Your task to perform on an android device: visit the assistant section in the google photos Image 0: 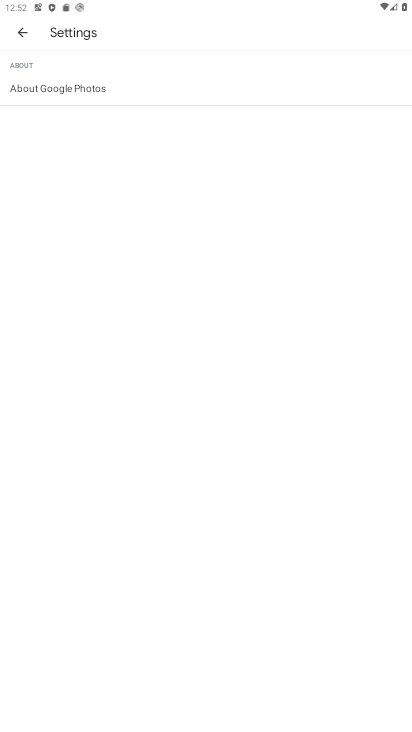
Step 0: press home button
Your task to perform on an android device: visit the assistant section in the google photos Image 1: 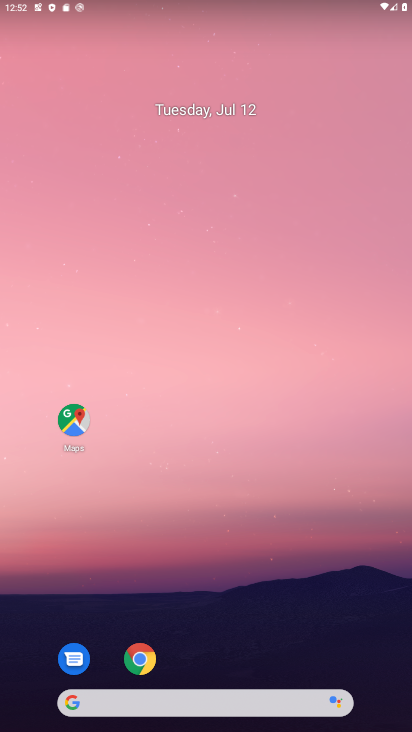
Step 1: drag from (187, 623) to (158, 201)
Your task to perform on an android device: visit the assistant section in the google photos Image 2: 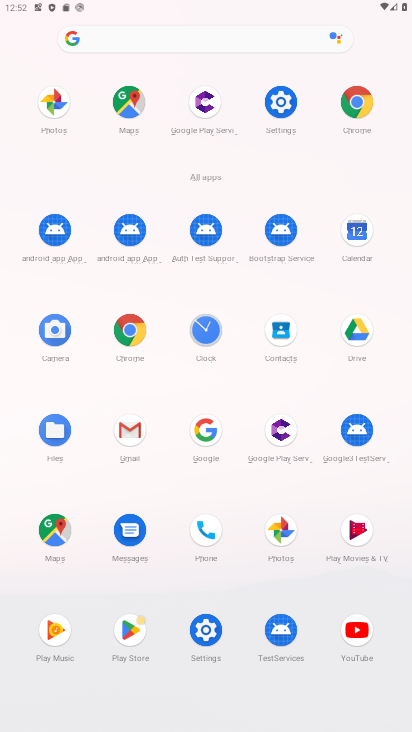
Step 2: click (268, 527)
Your task to perform on an android device: visit the assistant section in the google photos Image 3: 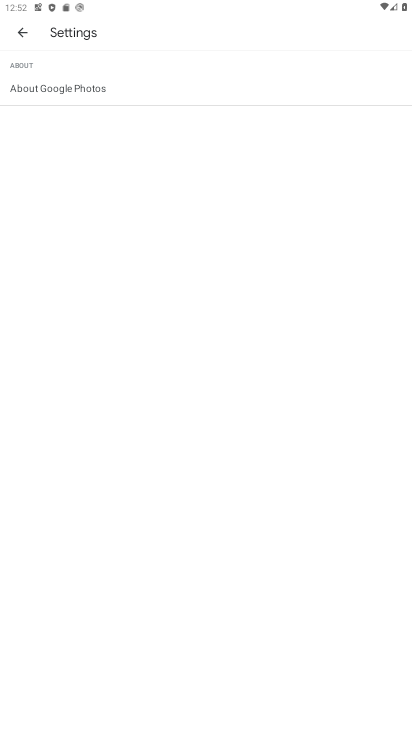
Step 3: click (17, 30)
Your task to perform on an android device: visit the assistant section in the google photos Image 4: 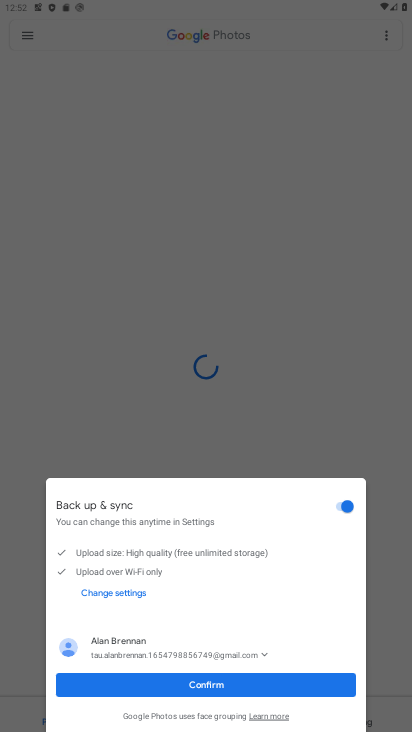
Step 4: click (342, 418)
Your task to perform on an android device: visit the assistant section in the google photos Image 5: 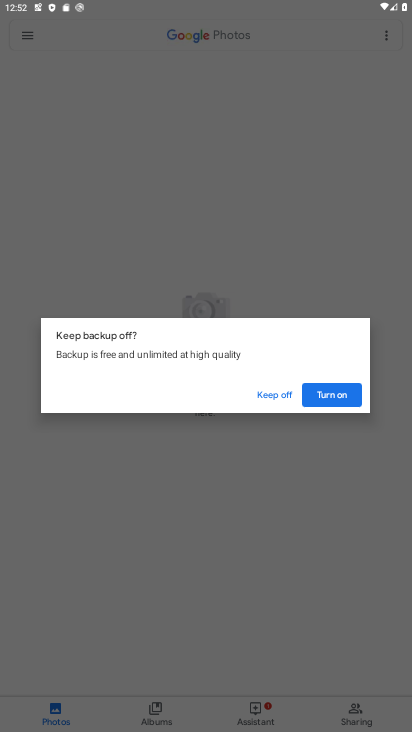
Step 5: click (256, 712)
Your task to perform on an android device: visit the assistant section in the google photos Image 6: 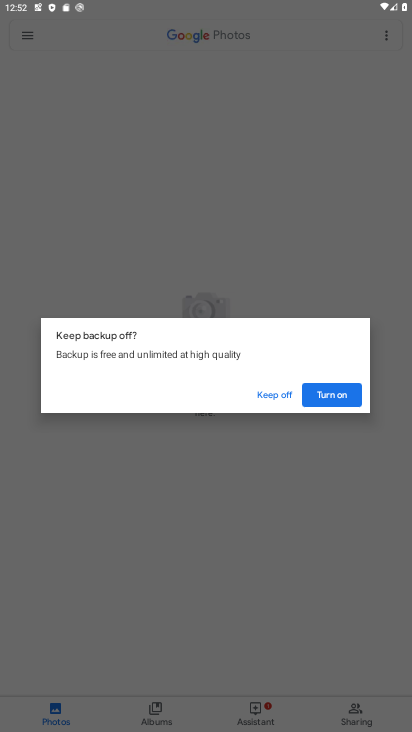
Step 6: click (289, 392)
Your task to perform on an android device: visit the assistant section in the google photos Image 7: 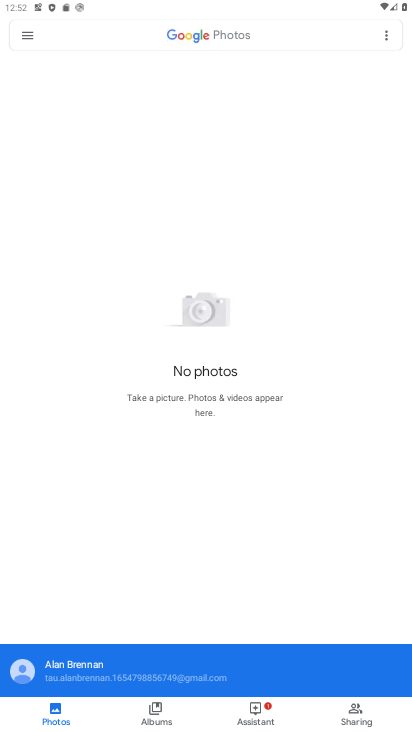
Step 7: click (249, 711)
Your task to perform on an android device: visit the assistant section in the google photos Image 8: 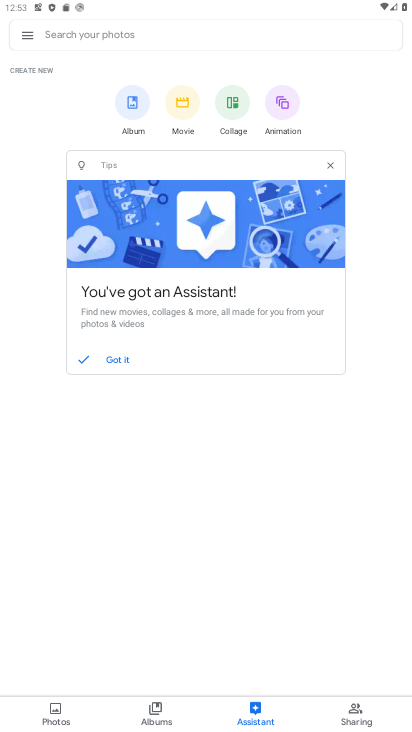
Step 8: task complete